Your task to perform on an android device: Search for Italian restaurants on Maps Image 0: 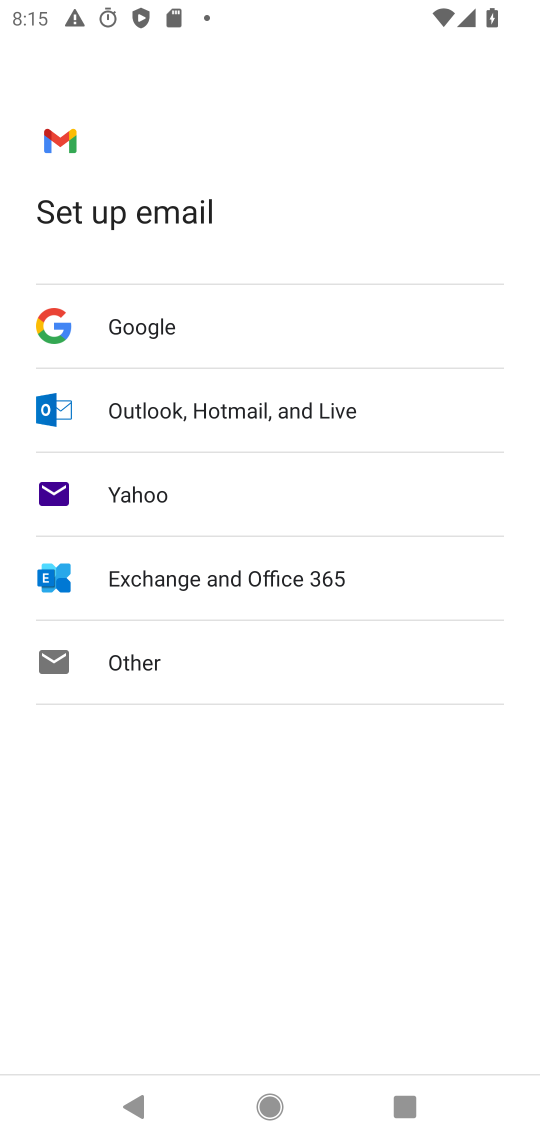
Step 0: press home button
Your task to perform on an android device: Search for Italian restaurants on Maps Image 1: 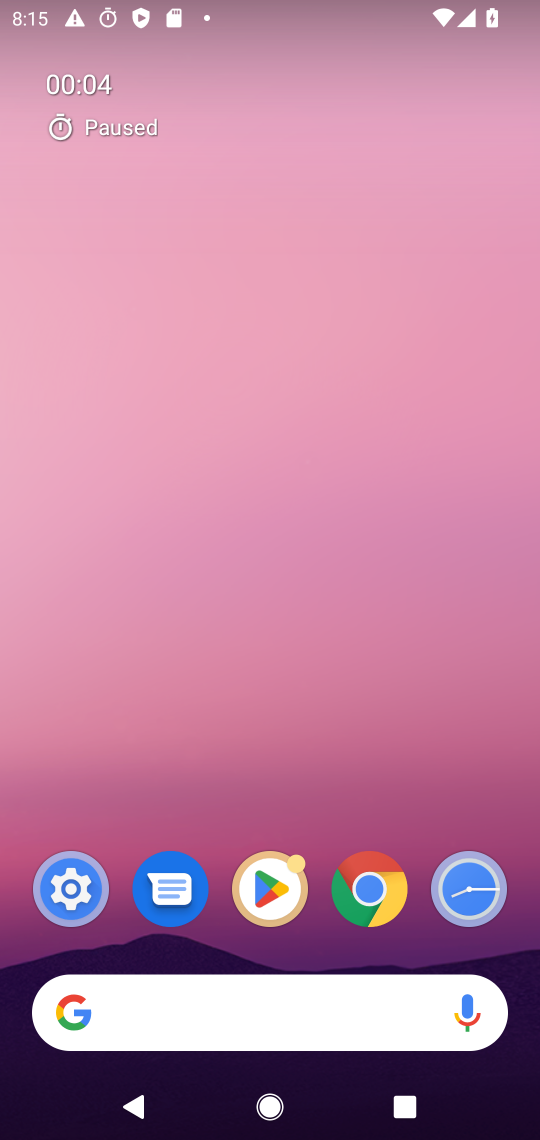
Step 1: drag from (281, 805) to (214, 279)
Your task to perform on an android device: Search for Italian restaurants on Maps Image 2: 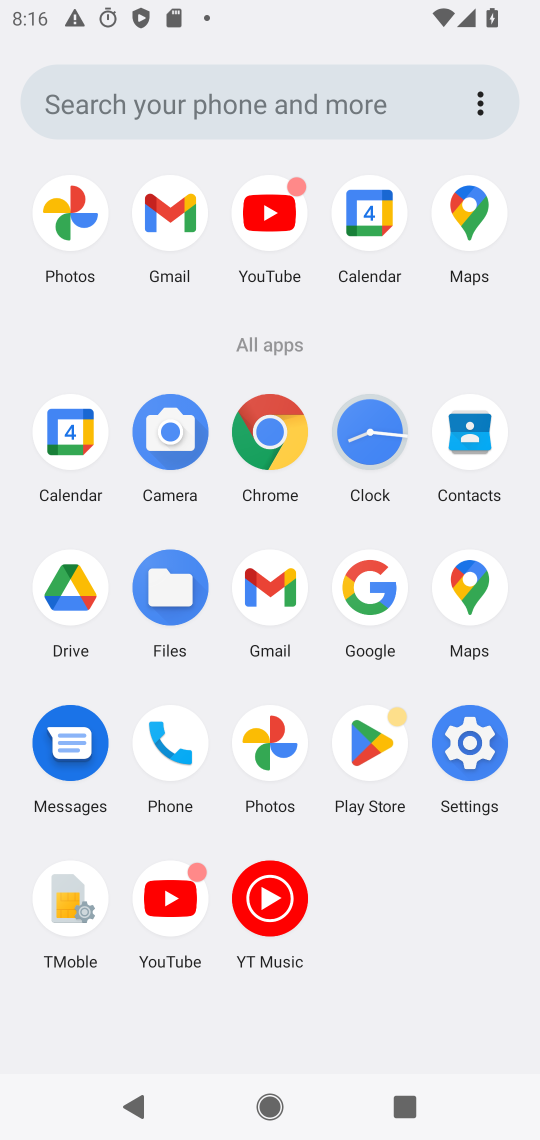
Step 2: click (463, 590)
Your task to perform on an android device: Search for Italian restaurants on Maps Image 3: 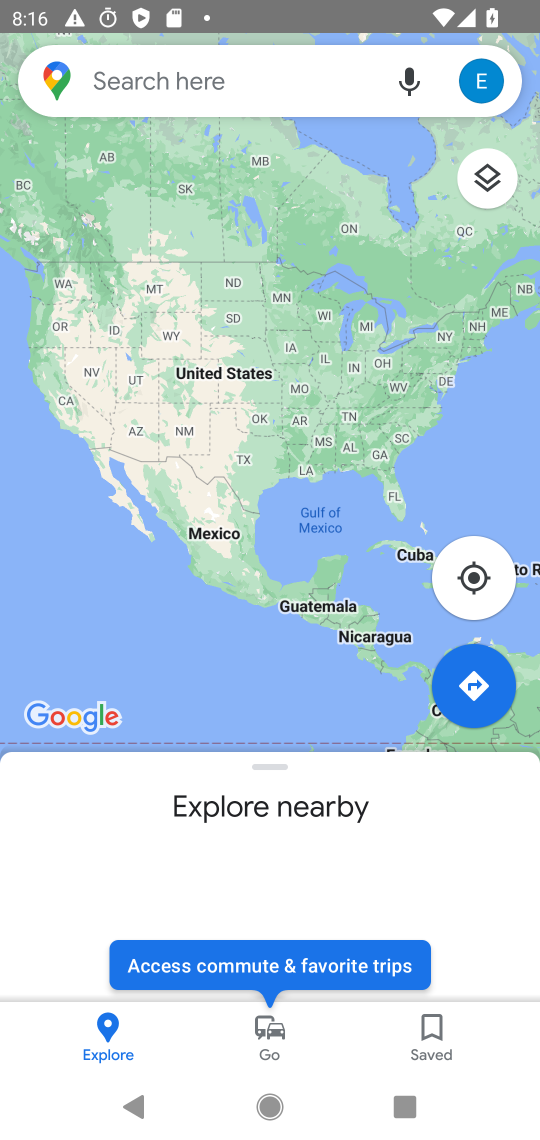
Step 3: click (237, 82)
Your task to perform on an android device: Search for Italian restaurants on Maps Image 4: 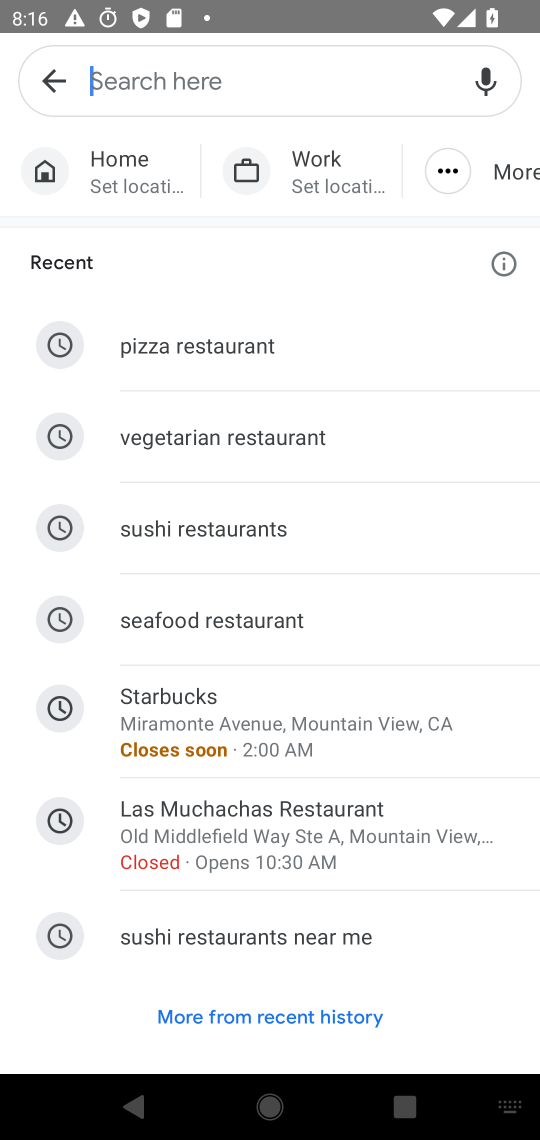
Step 4: type "Italian restaurants"
Your task to perform on an android device: Search for Italian restaurants on Maps Image 5: 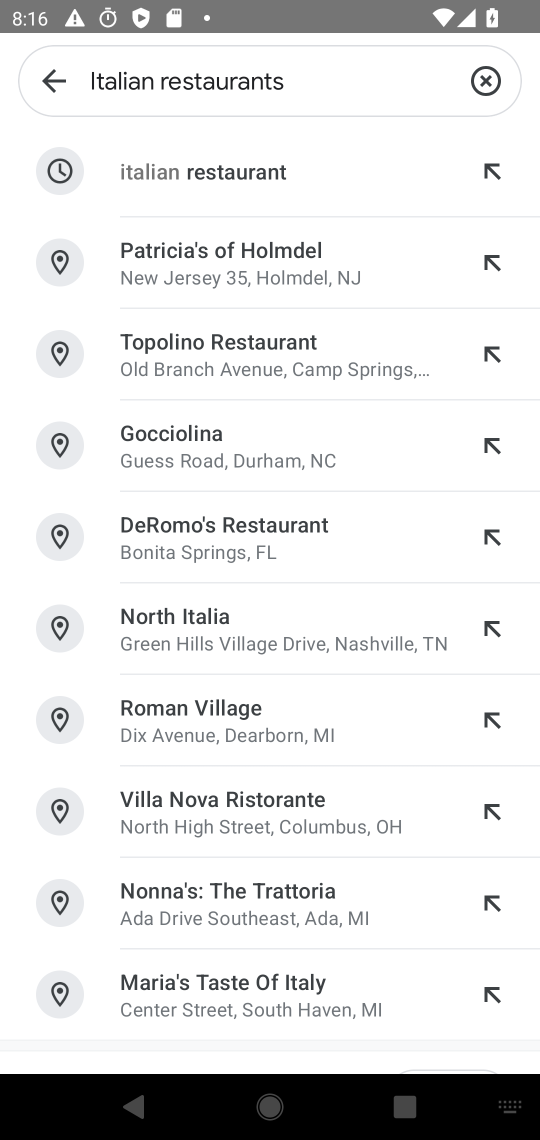
Step 5: click (273, 164)
Your task to perform on an android device: Search for Italian restaurants on Maps Image 6: 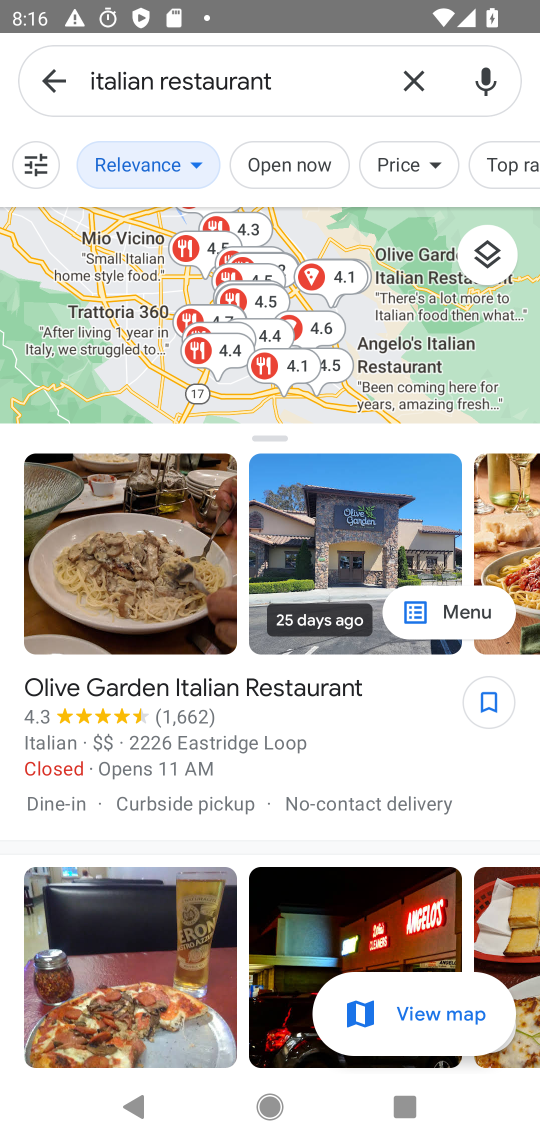
Step 6: task complete